Your task to perform on an android device: Open calendar and show me the fourth week of next month Image 0: 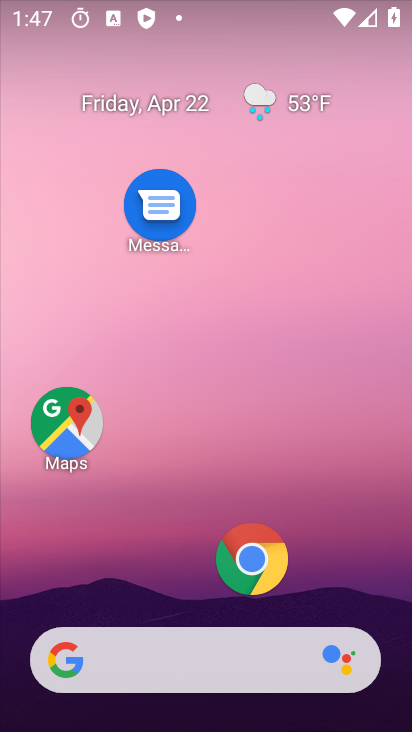
Step 0: drag from (169, 627) to (267, 236)
Your task to perform on an android device: Open calendar and show me the fourth week of next month Image 1: 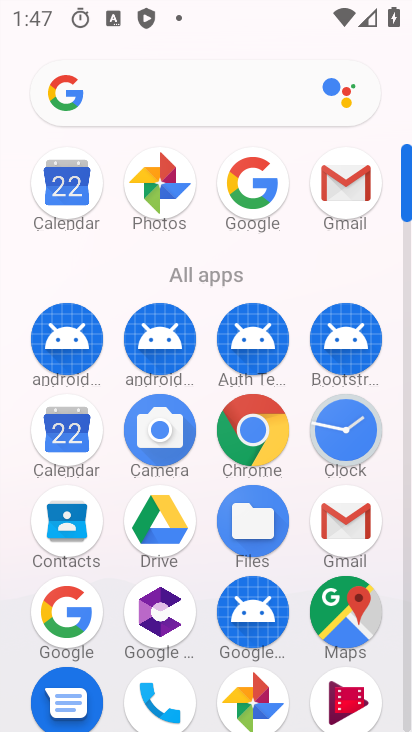
Step 1: click (59, 188)
Your task to perform on an android device: Open calendar and show me the fourth week of next month Image 2: 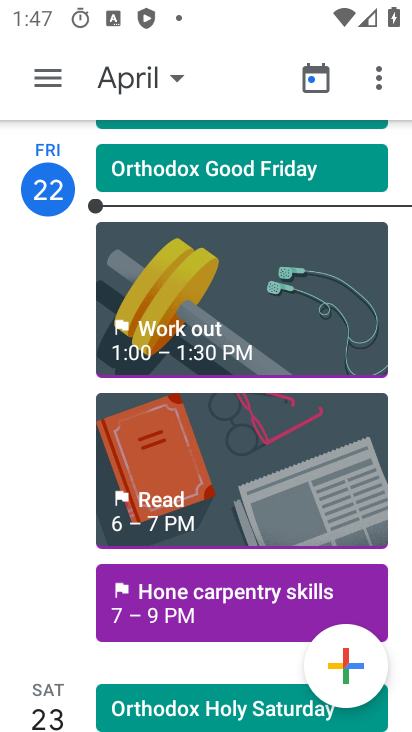
Step 2: click (148, 80)
Your task to perform on an android device: Open calendar and show me the fourth week of next month Image 3: 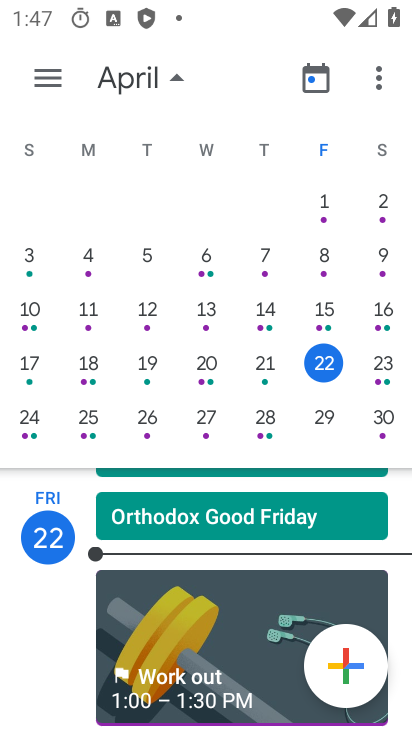
Step 3: drag from (378, 315) to (7, 329)
Your task to perform on an android device: Open calendar and show me the fourth week of next month Image 4: 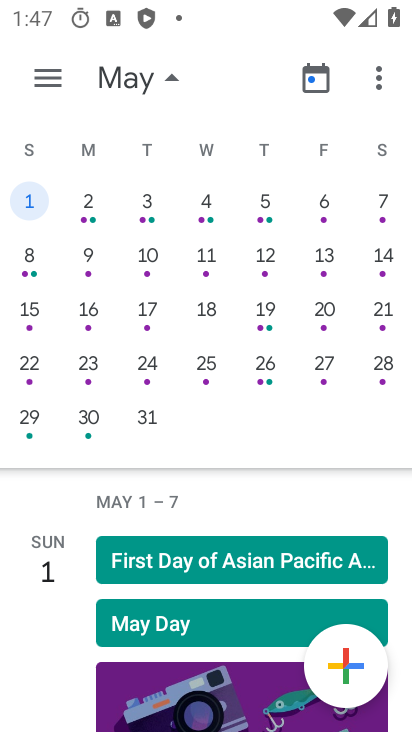
Step 4: click (32, 363)
Your task to perform on an android device: Open calendar and show me the fourth week of next month Image 5: 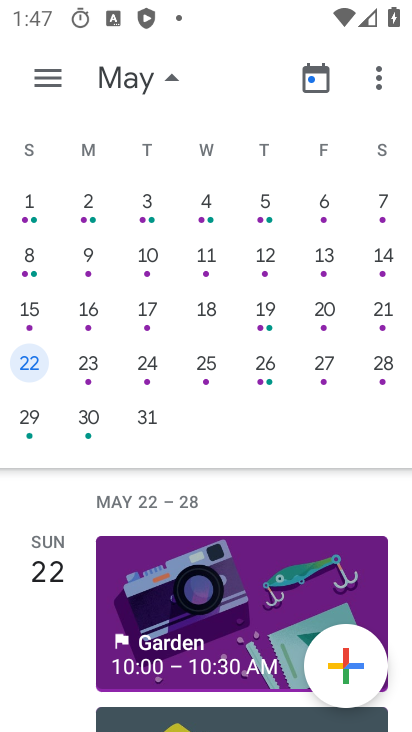
Step 5: task complete